Your task to perform on an android device: Open Google Chrome Image 0: 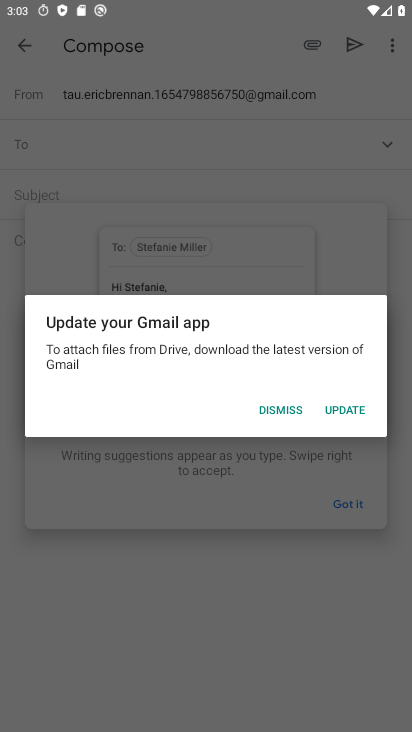
Step 0: click (279, 414)
Your task to perform on an android device: Open Google Chrome Image 1: 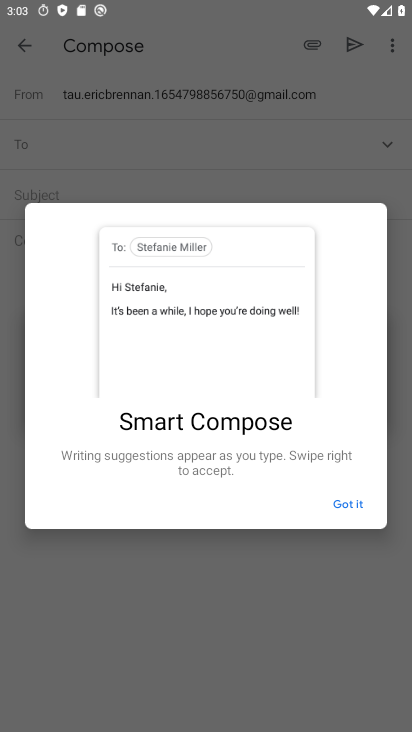
Step 1: click (345, 498)
Your task to perform on an android device: Open Google Chrome Image 2: 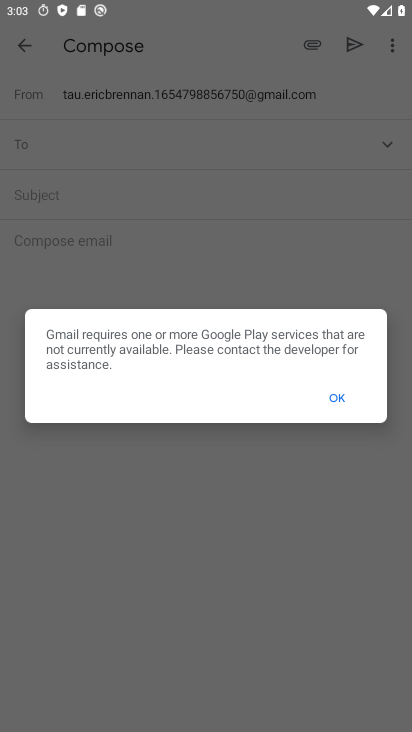
Step 2: click (323, 398)
Your task to perform on an android device: Open Google Chrome Image 3: 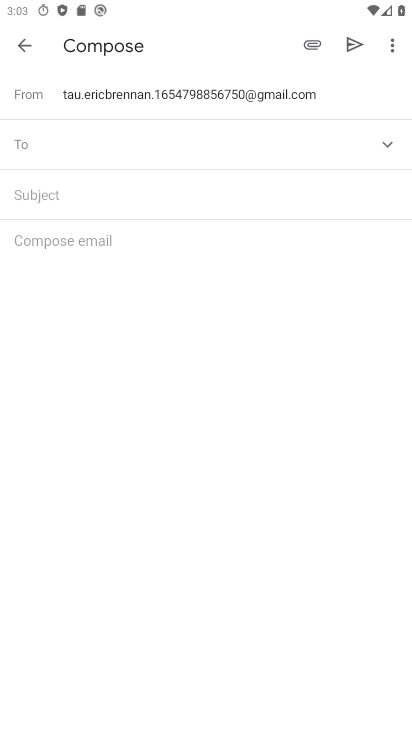
Step 3: click (29, 43)
Your task to perform on an android device: Open Google Chrome Image 4: 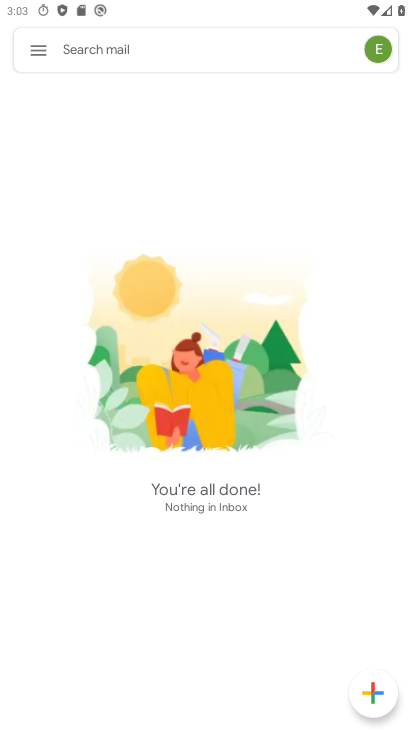
Step 4: press back button
Your task to perform on an android device: Open Google Chrome Image 5: 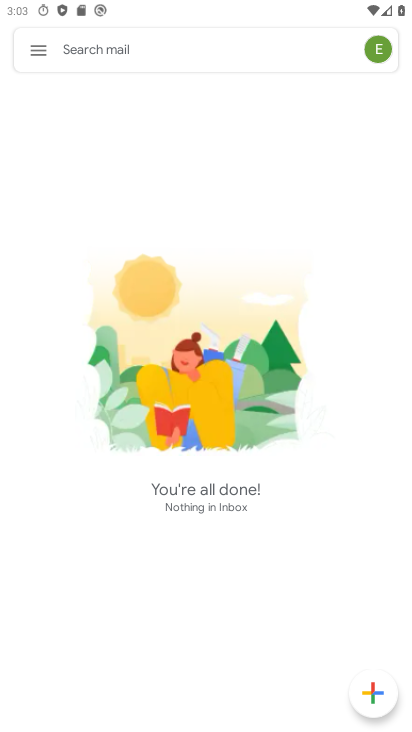
Step 5: press back button
Your task to perform on an android device: Open Google Chrome Image 6: 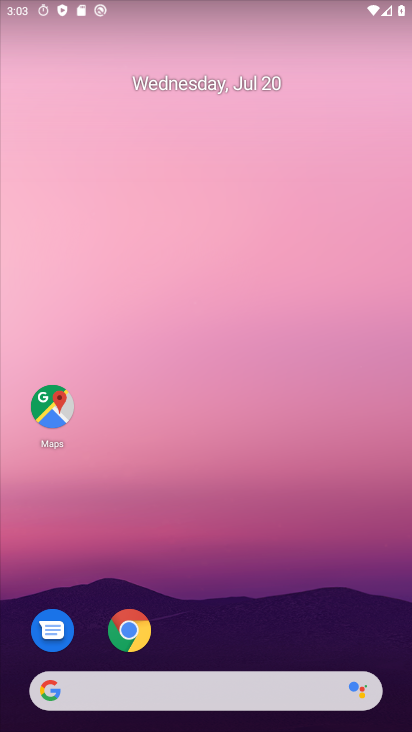
Step 6: drag from (243, 505) to (165, 3)
Your task to perform on an android device: Open Google Chrome Image 7: 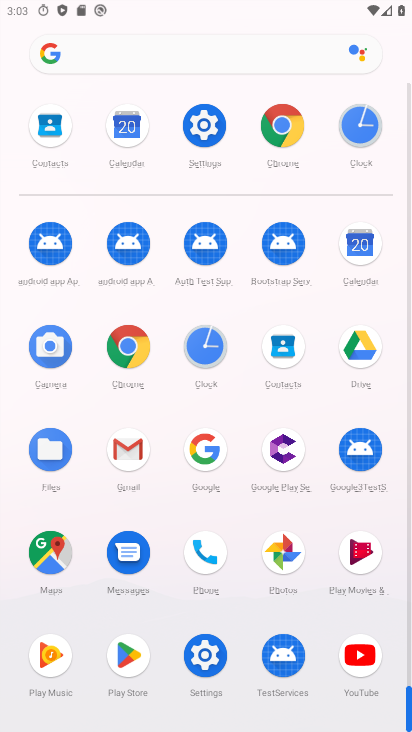
Step 7: click (269, 117)
Your task to perform on an android device: Open Google Chrome Image 8: 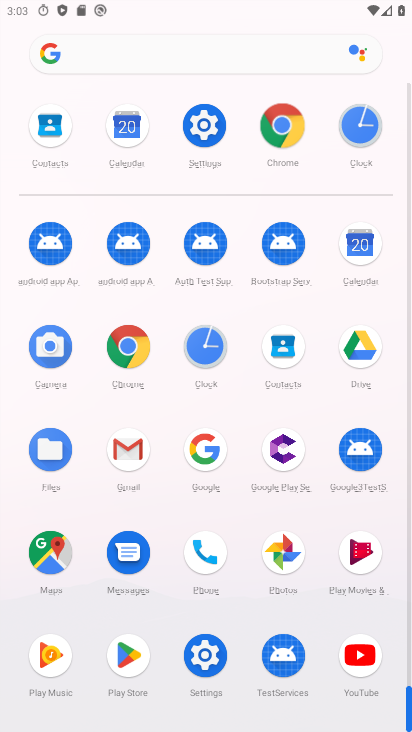
Step 8: click (280, 121)
Your task to perform on an android device: Open Google Chrome Image 9: 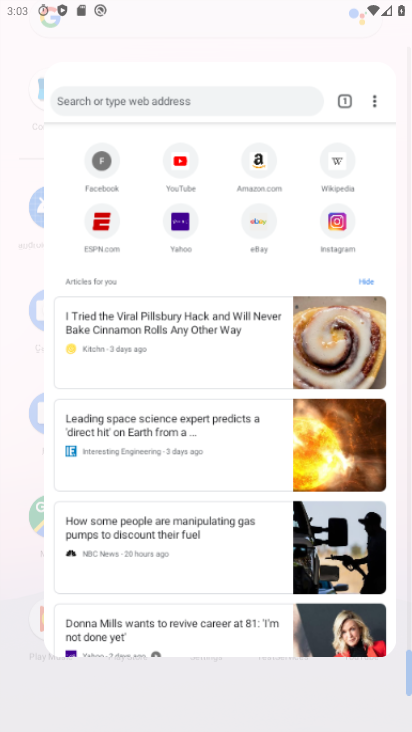
Step 9: click (280, 121)
Your task to perform on an android device: Open Google Chrome Image 10: 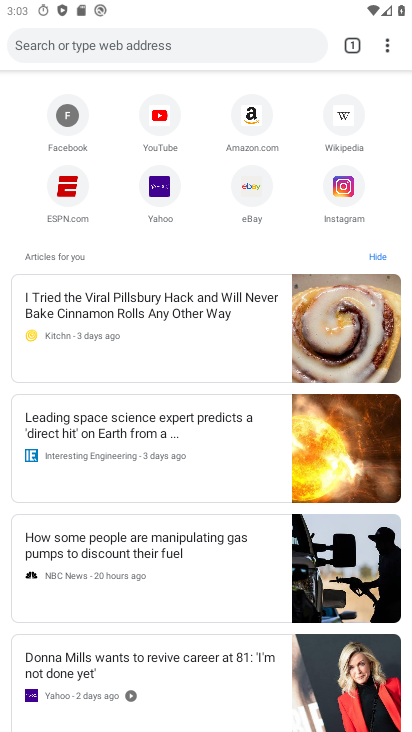
Step 10: click (388, 50)
Your task to perform on an android device: Open Google Chrome Image 11: 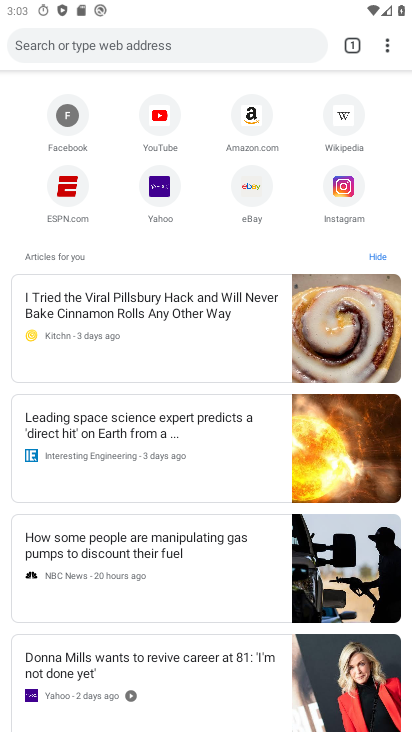
Step 11: click (389, 49)
Your task to perform on an android device: Open Google Chrome Image 12: 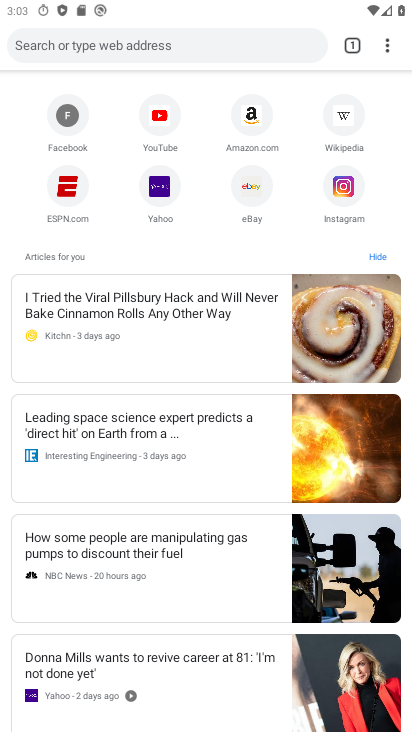
Step 12: click (385, 43)
Your task to perform on an android device: Open Google Chrome Image 13: 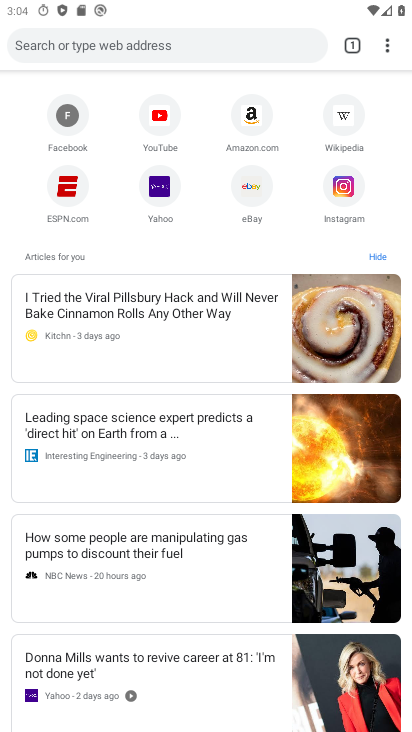
Step 13: drag from (385, 47) to (235, 393)
Your task to perform on an android device: Open Google Chrome Image 14: 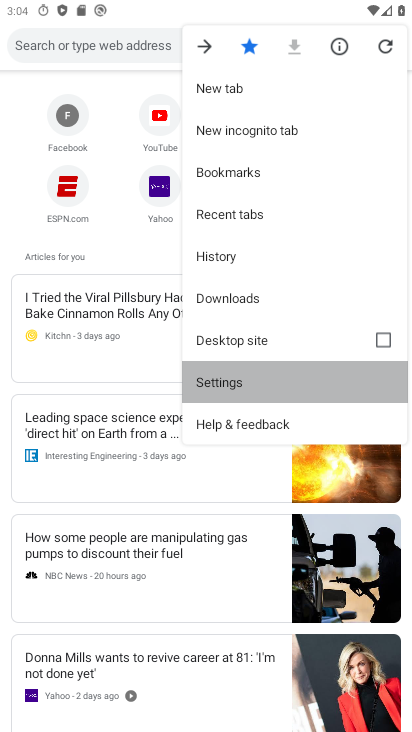
Step 14: click (235, 393)
Your task to perform on an android device: Open Google Chrome Image 15: 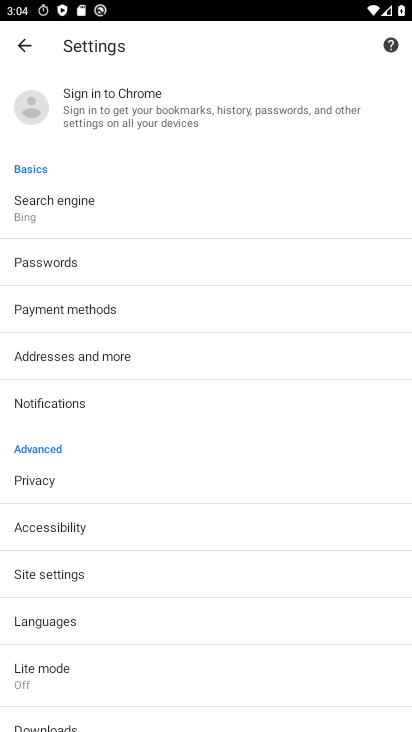
Step 15: task complete